Your task to perform on an android device: Go to Wikipedia Image 0: 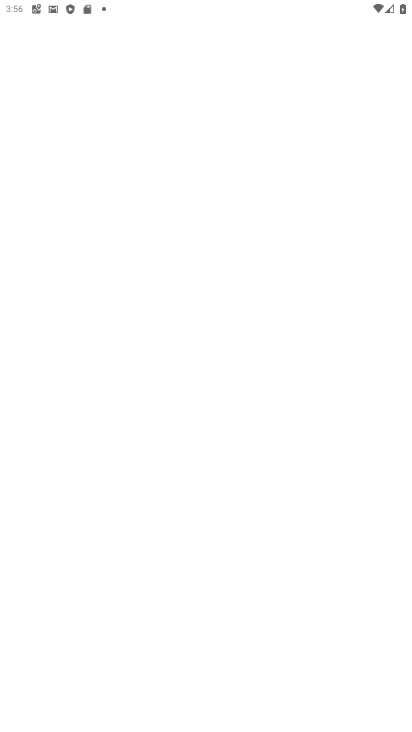
Step 0: press home button
Your task to perform on an android device: Go to Wikipedia Image 1: 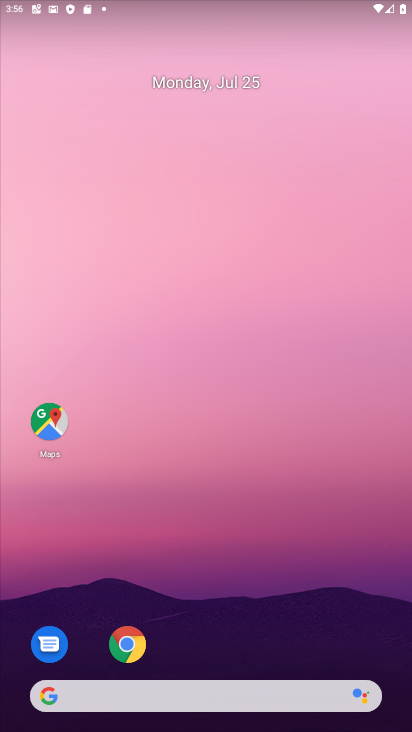
Step 1: click (47, 692)
Your task to perform on an android device: Go to Wikipedia Image 2: 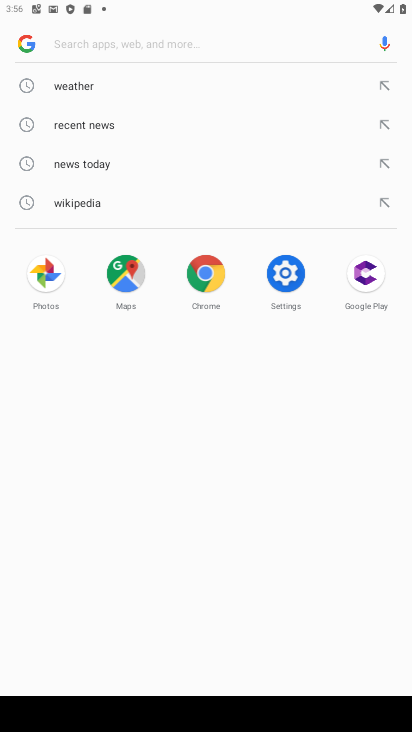
Step 2: type "Wikipedia"
Your task to perform on an android device: Go to Wikipedia Image 3: 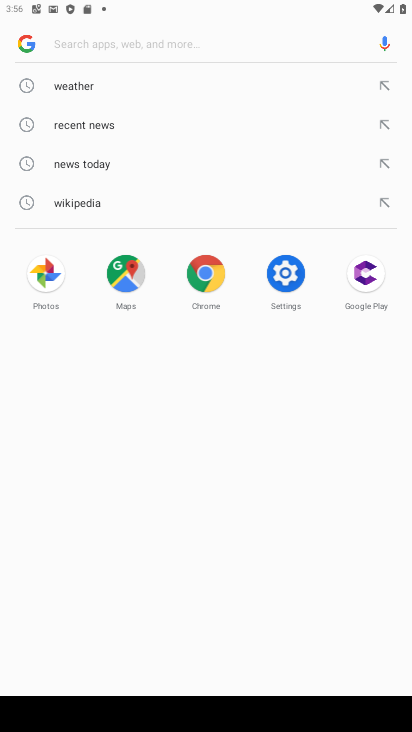
Step 3: click (85, 45)
Your task to perform on an android device: Go to Wikipedia Image 4: 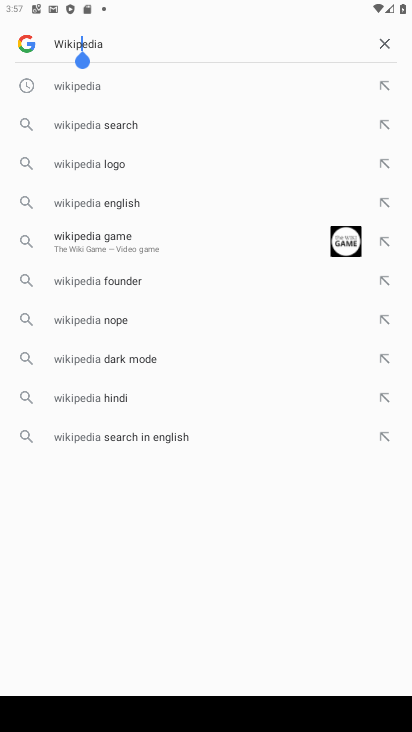
Step 4: click (60, 84)
Your task to perform on an android device: Go to Wikipedia Image 5: 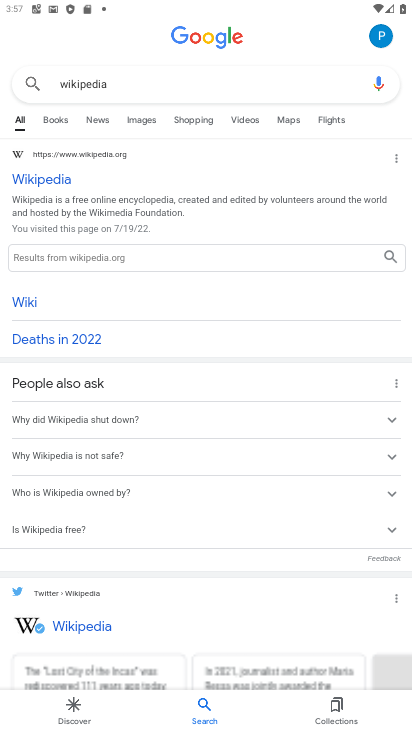
Step 5: click (52, 183)
Your task to perform on an android device: Go to Wikipedia Image 6: 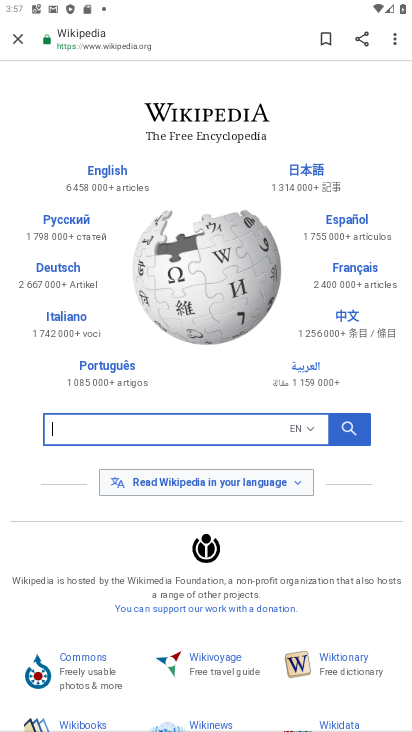
Step 6: task complete